Your task to perform on an android device: Is it going to rain today? Image 0: 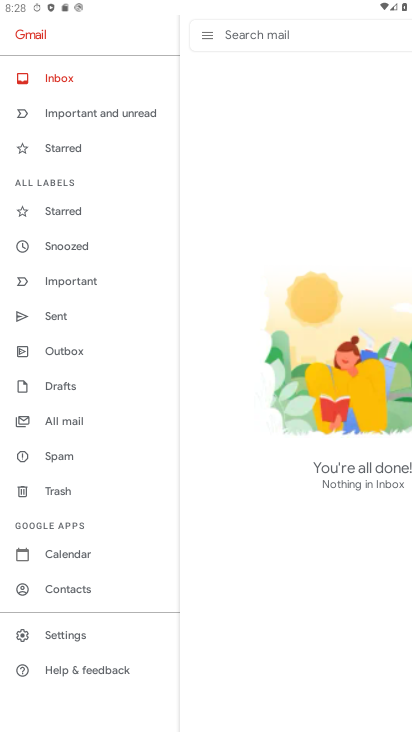
Step 0: press home button
Your task to perform on an android device: Is it going to rain today? Image 1: 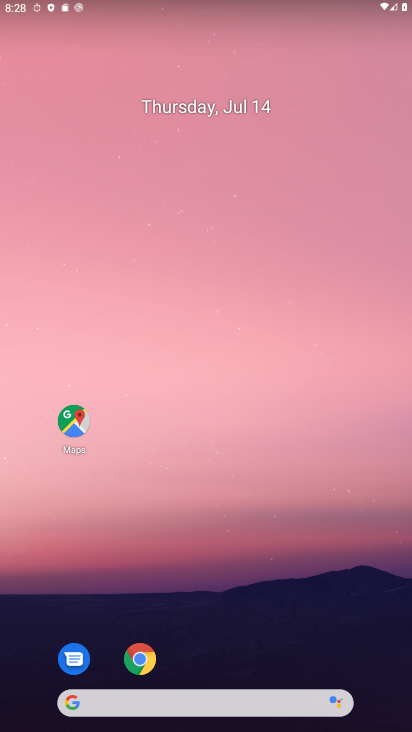
Step 1: click (214, 696)
Your task to perform on an android device: Is it going to rain today? Image 2: 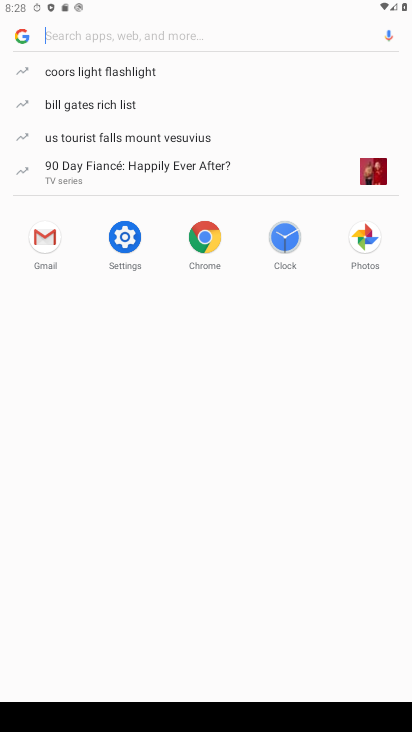
Step 2: type "weather"
Your task to perform on an android device: Is it going to rain today? Image 3: 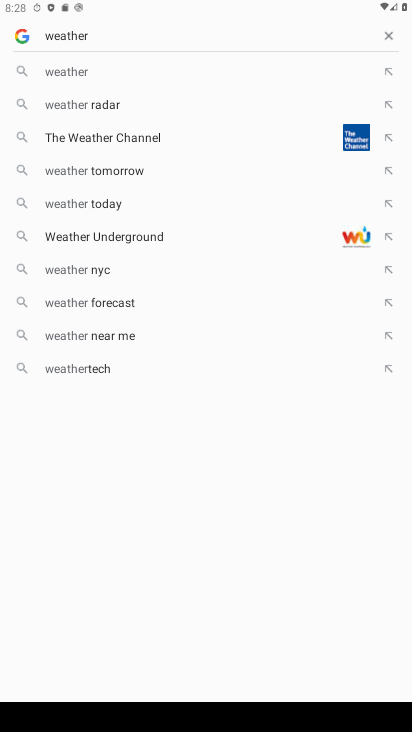
Step 3: click (81, 70)
Your task to perform on an android device: Is it going to rain today? Image 4: 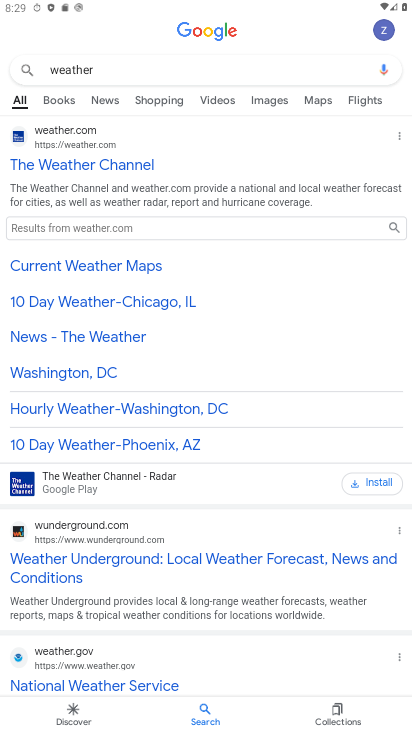
Step 4: click (98, 164)
Your task to perform on an android device: Is it going to rain today? Image 5: 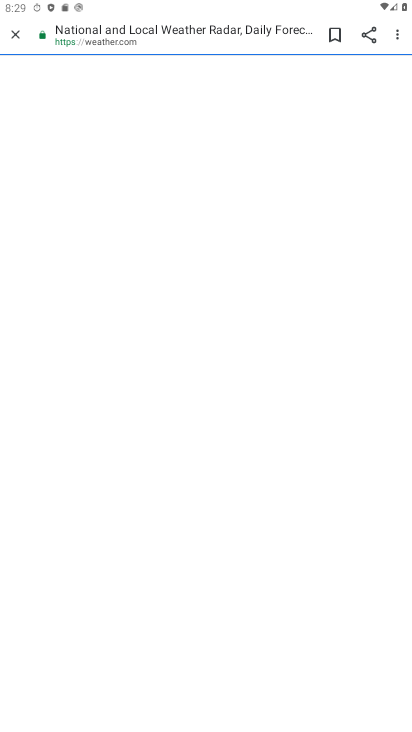
Step 5: task complete